Your task to perform on an android device: turn on data saver in the chrome app Image 0: 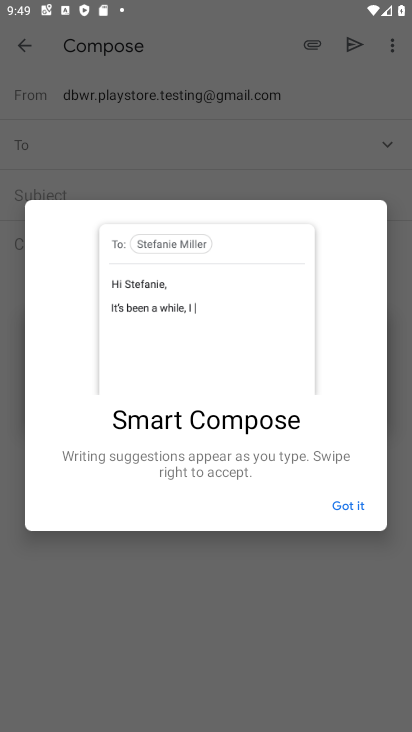
Step 0: press home button
Your task to perform on an android device: turn on data saver in the chrome app Image 1: 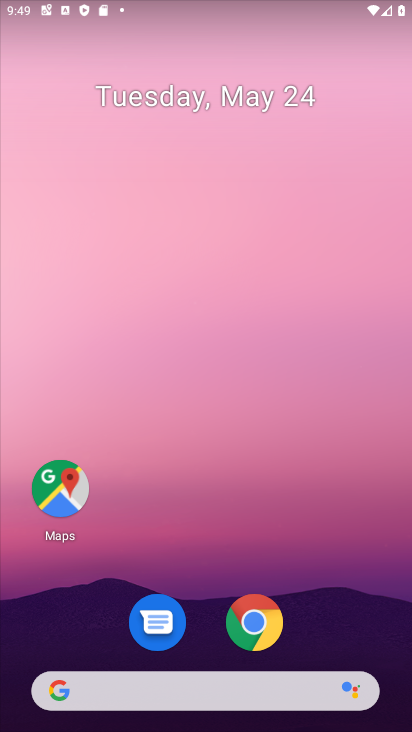
Step 1: drag from (269, 711) to (242, 197)
Your task to perform on an android device: turn on data saver in the chrome app Image 2: 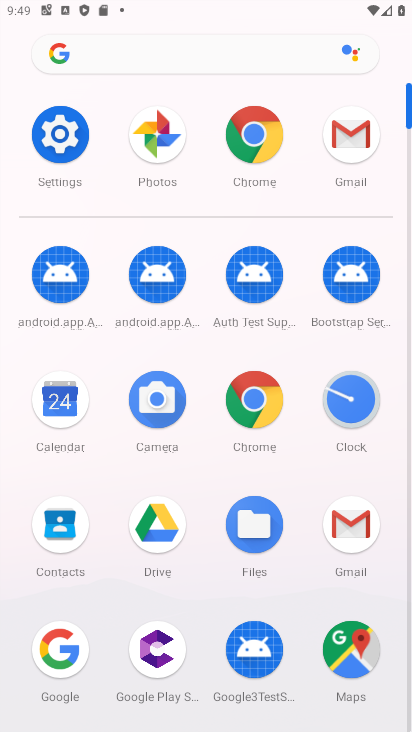
Step 2: click (245, 141)
Your task to perform on an android device: turn on data saver in the chrome app Image 3: 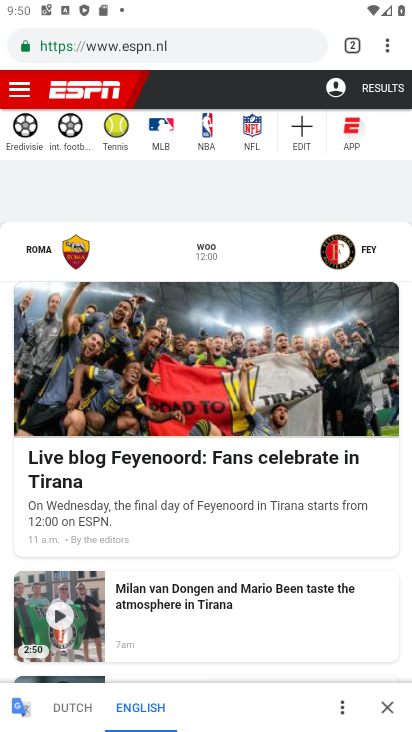
Step 3: click (382, 53)
Your task to perform on an android device: turn on data saver in the chrome app Image 4: 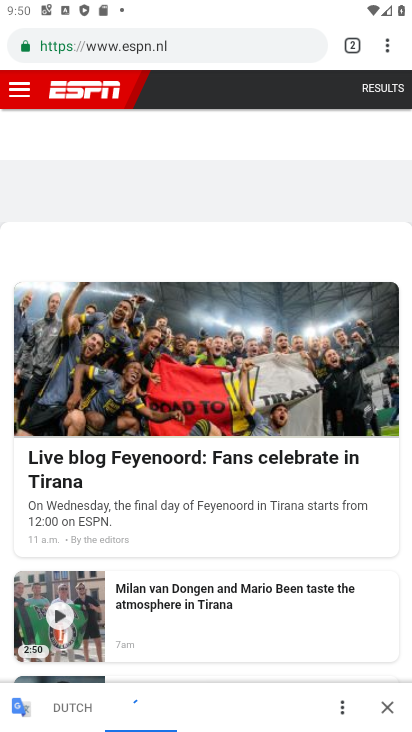
Step 4: click (395, 46)
Your task to perform on an android device: turn on data saver in the chrome app Image 5: 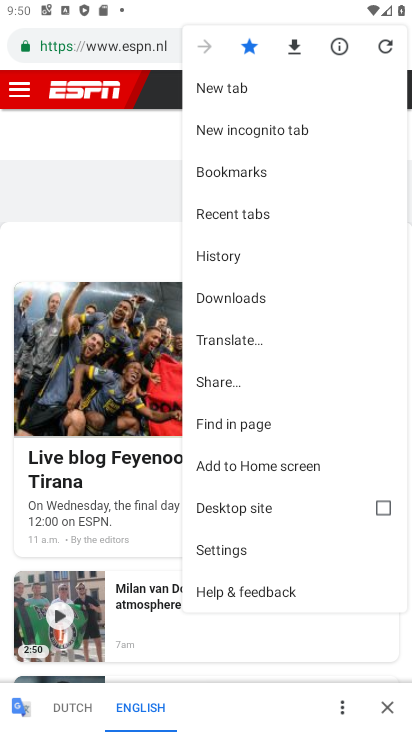
Step 5: click (225, 555)
Your task to perform on an android device: turn on data saver in the chrome app Image 6: 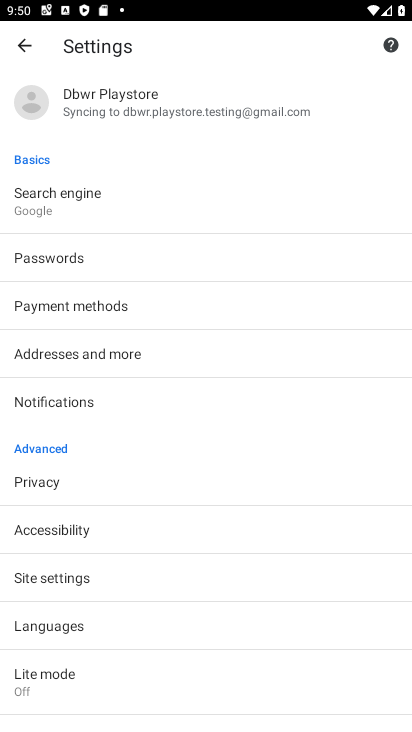
Step 6: click (77, 686)
Your task to perform on an android device: turn on data saver in the chrome app Image 7: 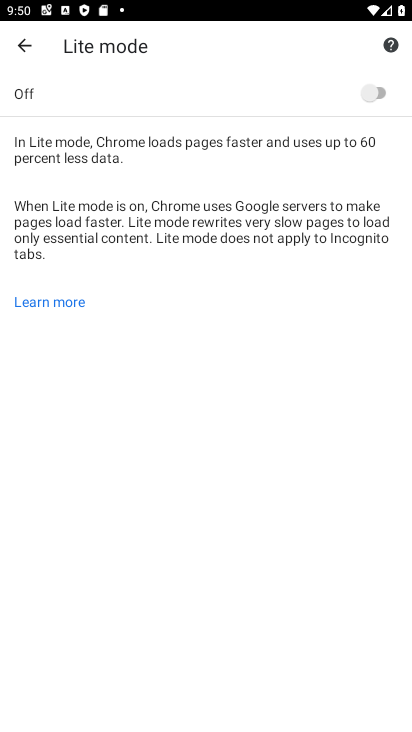
Step 7: task complete